Your task to perform on an android device: What's the weather going to be this weekend? Image 0: 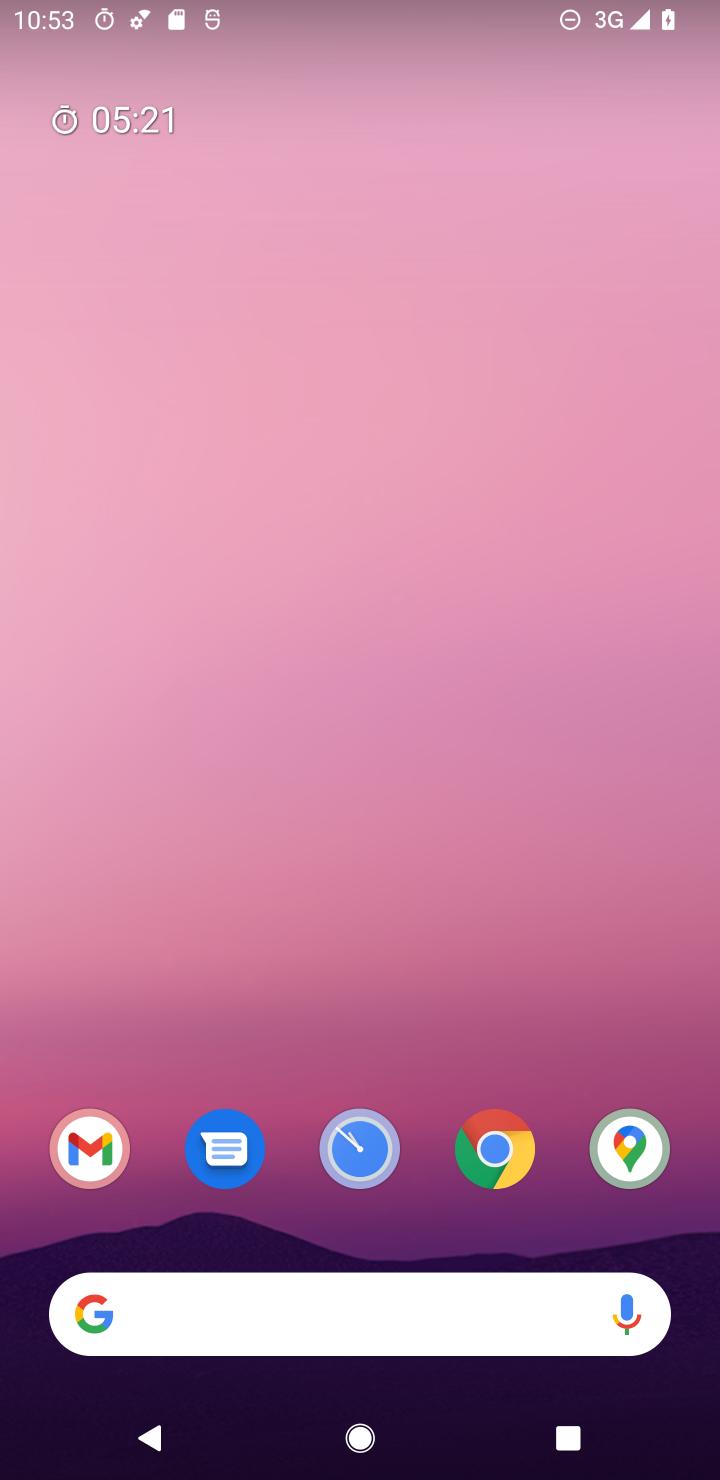
Step 0: drag from (405, 981) to (405, 378)
Your task to perform on an android device: What's the weather going to be this weekend? Image 1: 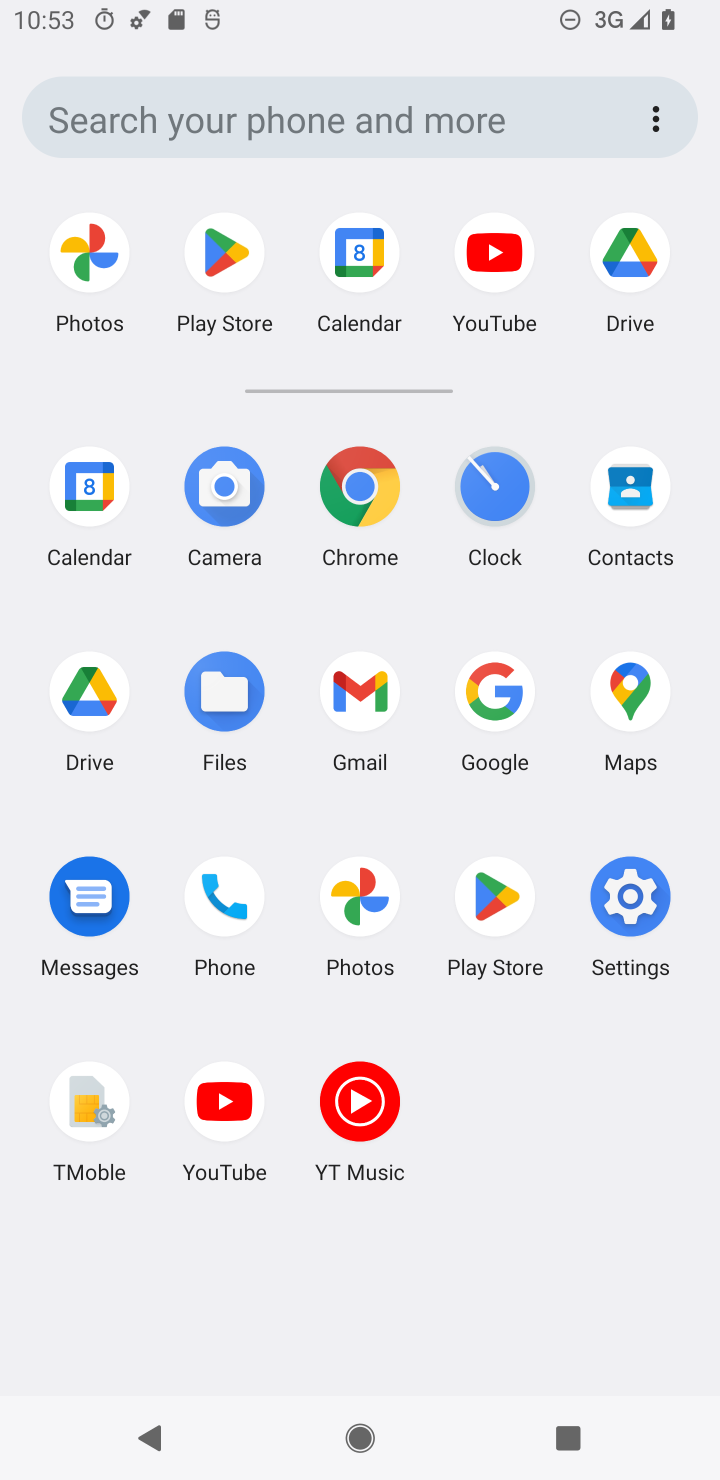
Step 1: click (474, 701)
Your task to perform on an android device: What's the weather going to be this weekend? Image 2: 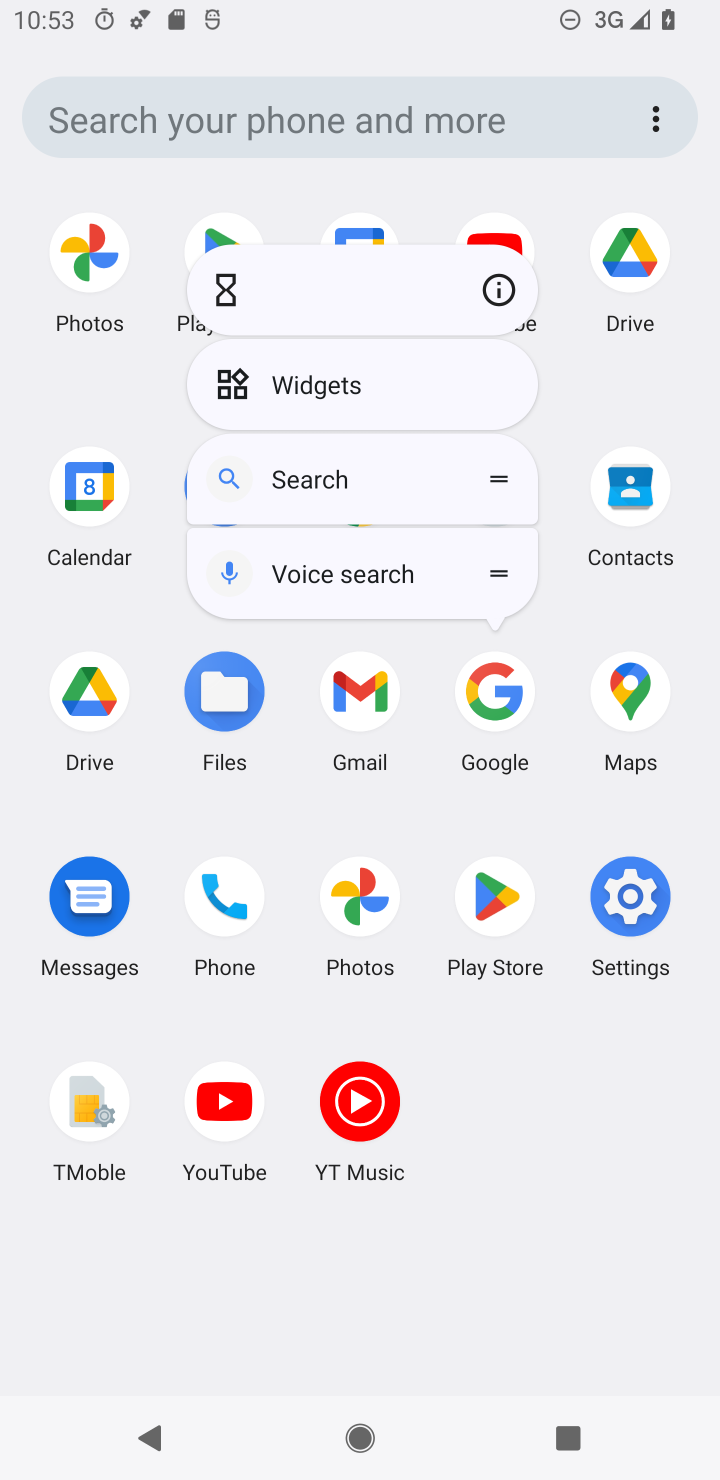
Step 2: click (463, 693)
Your task to perform on an android device: What's the weather going to be this weekend? Image 3: 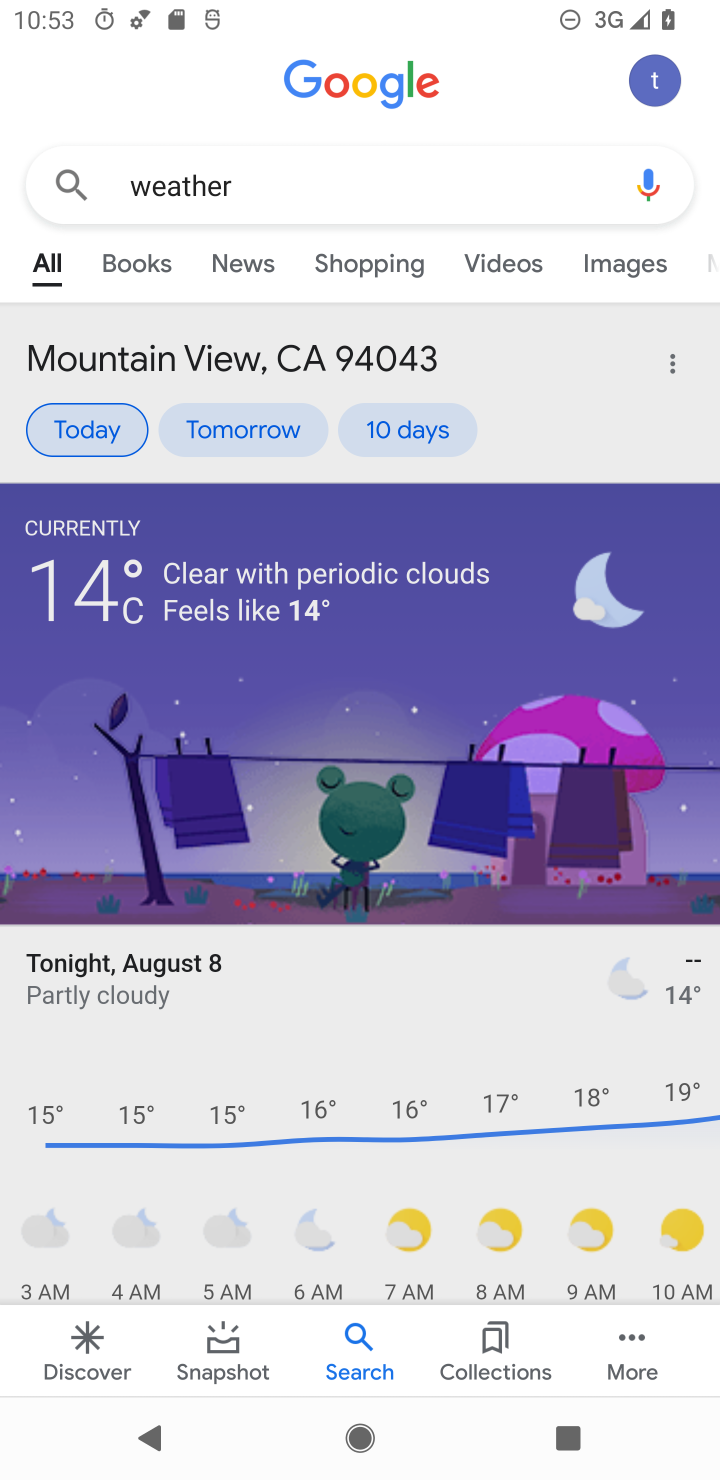
Step 3: click (363, 197)
Your task to perform on an android device: What's the weather going to be this weekend? Image 4: 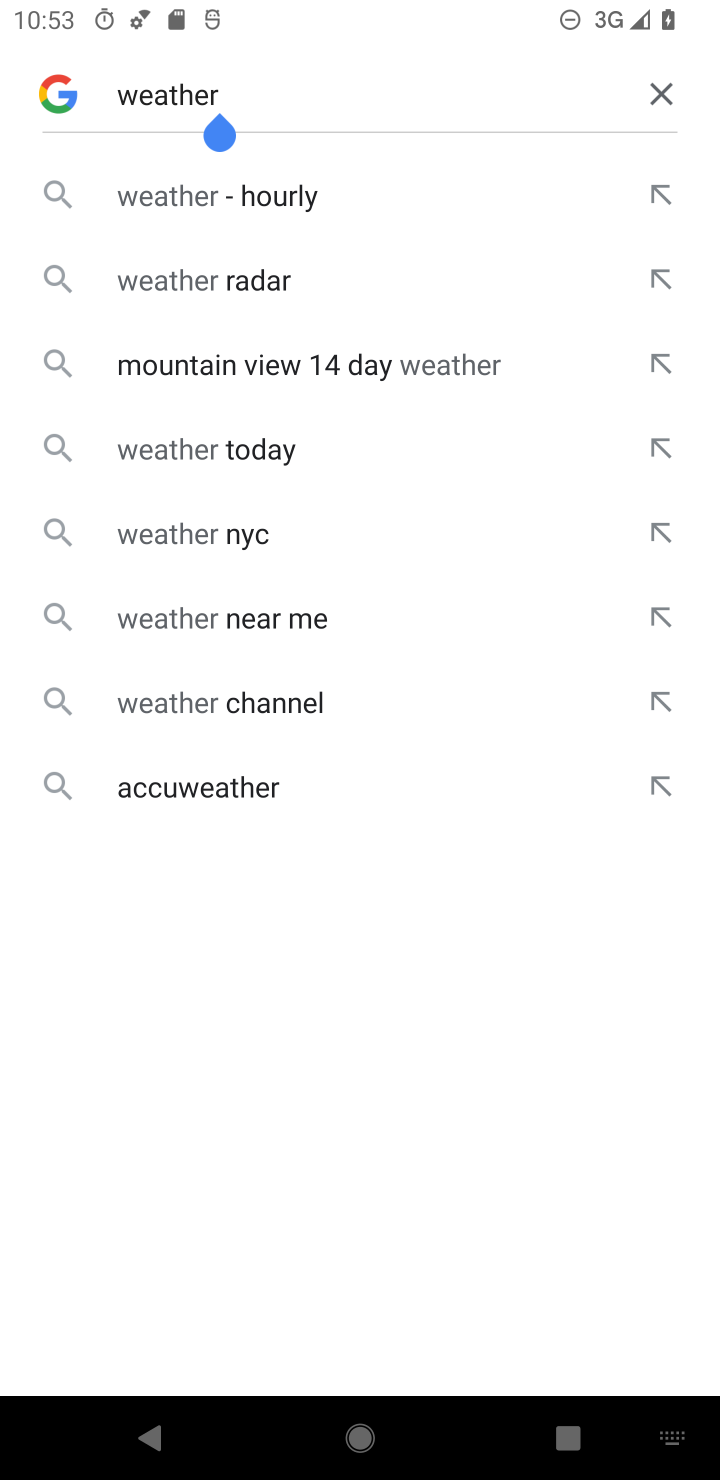
Step 4: click (661, 104)
Your task to perform on an android device: What's the weather going to be this weekend? Image 5: 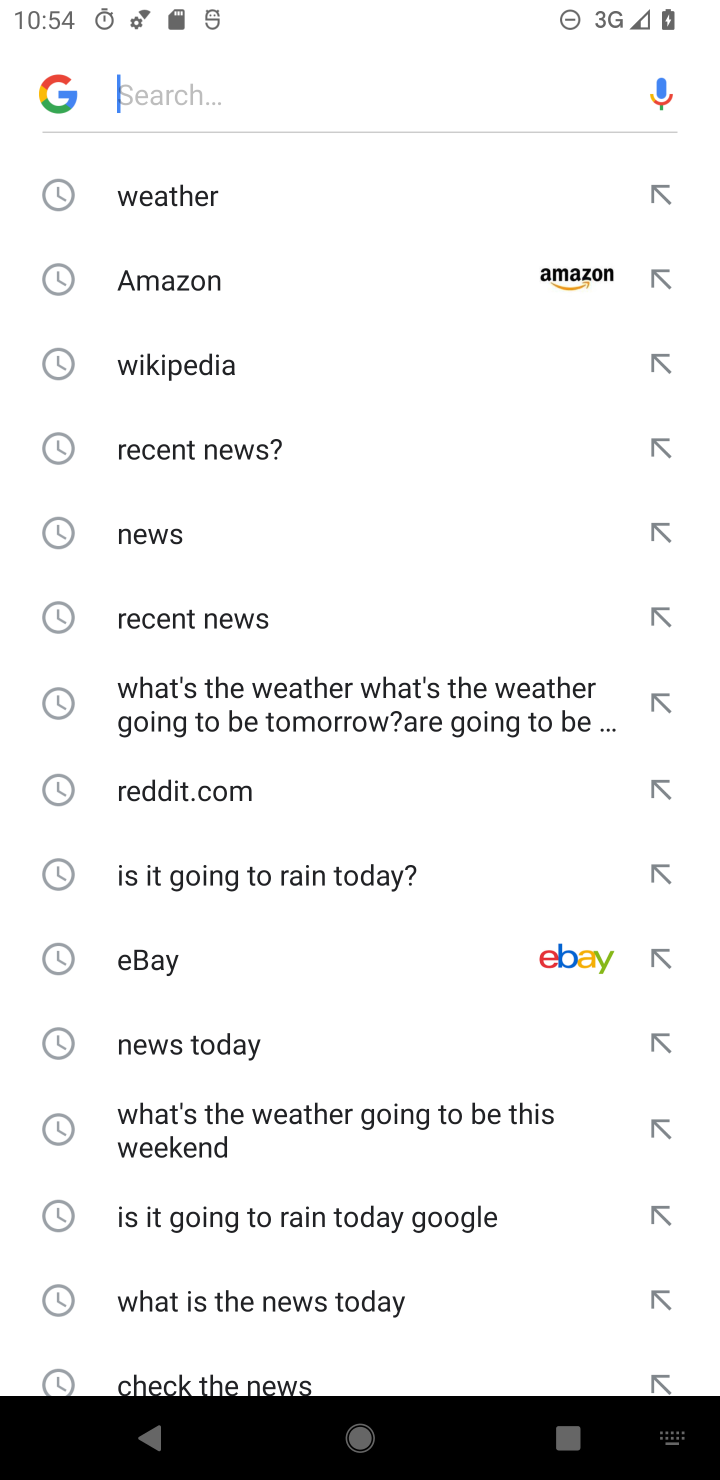
Step 5: click (179, 1129)
Your task to perform on an android device: What's the weather going to be this weekend? Image 6: 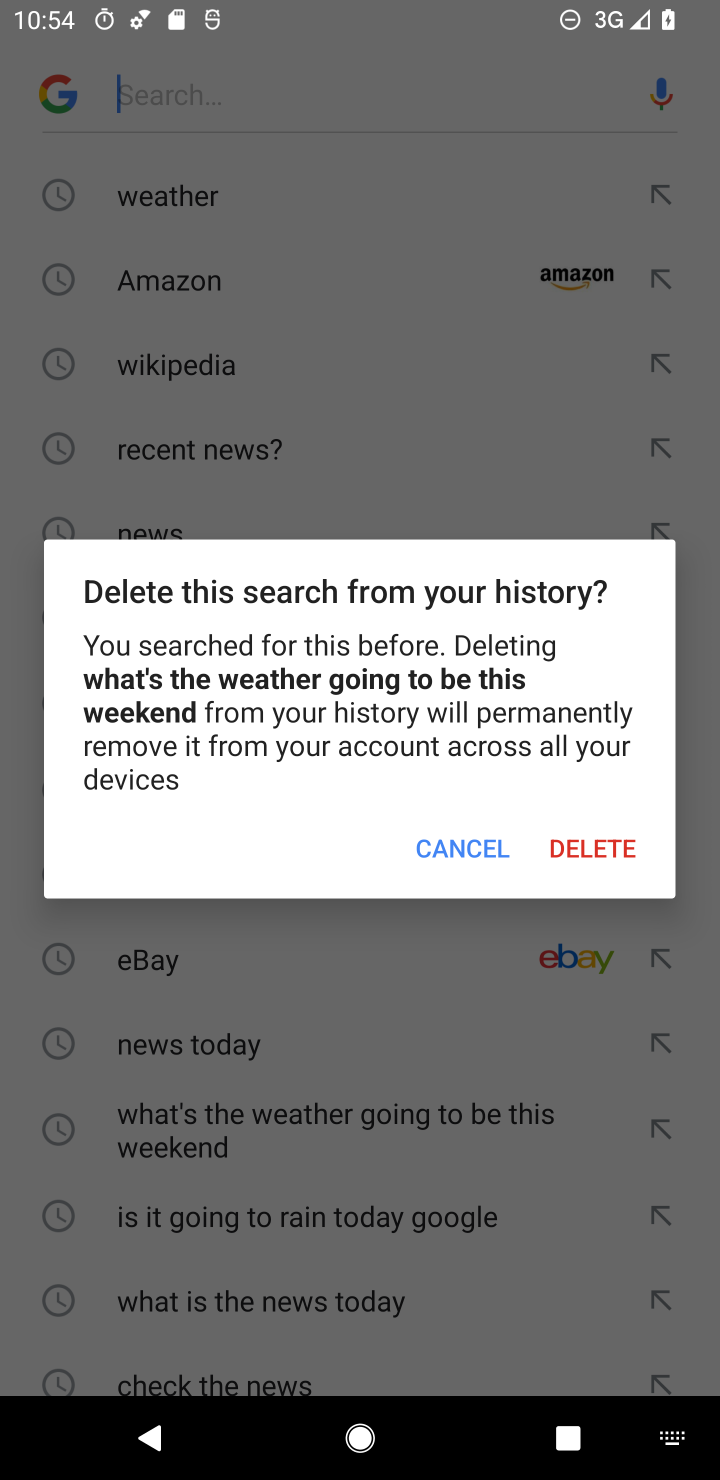
Step 6: click (473, 841)
Your task to perform on an android device: What's the weather going to be this weekend? Image 7: 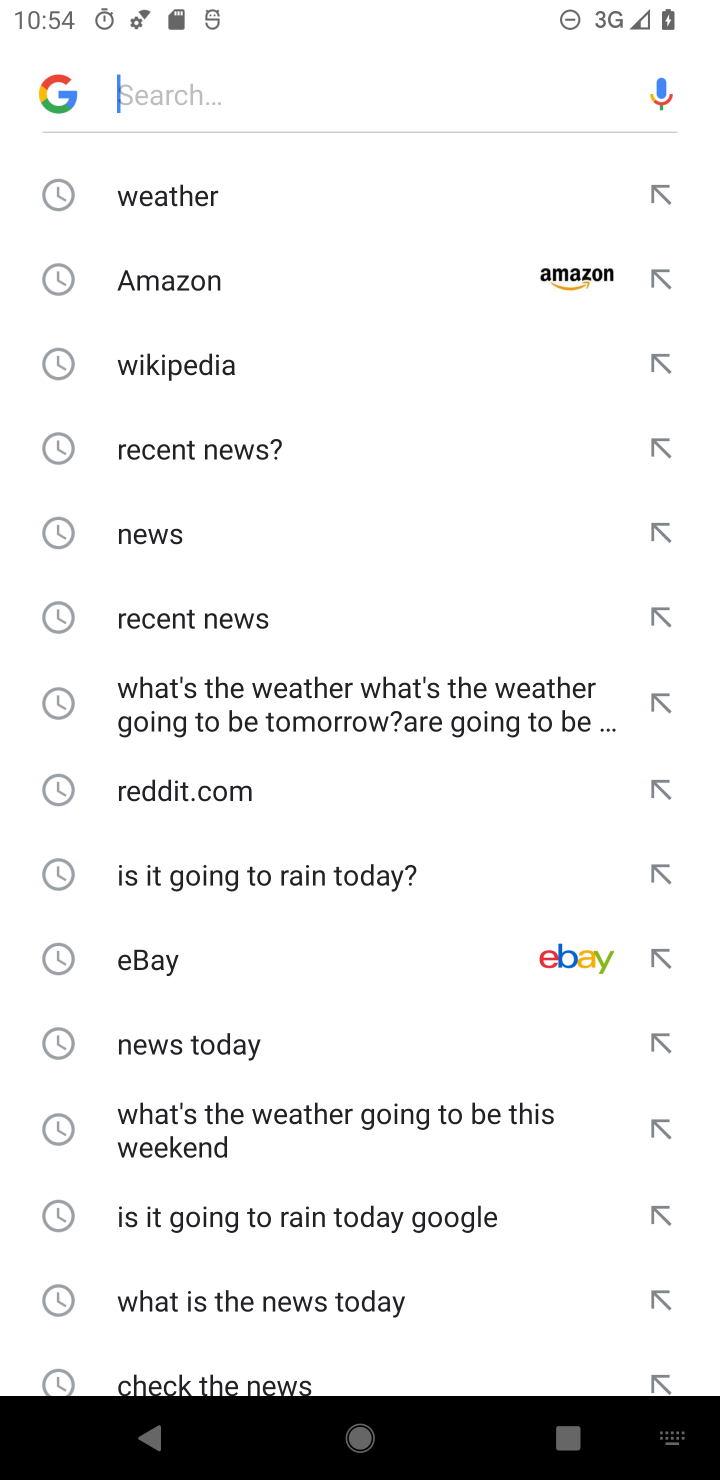
Step 7: click (287, 1116)
Your task to perform on an android device: What's the weather going to be this weekend? Image 8: 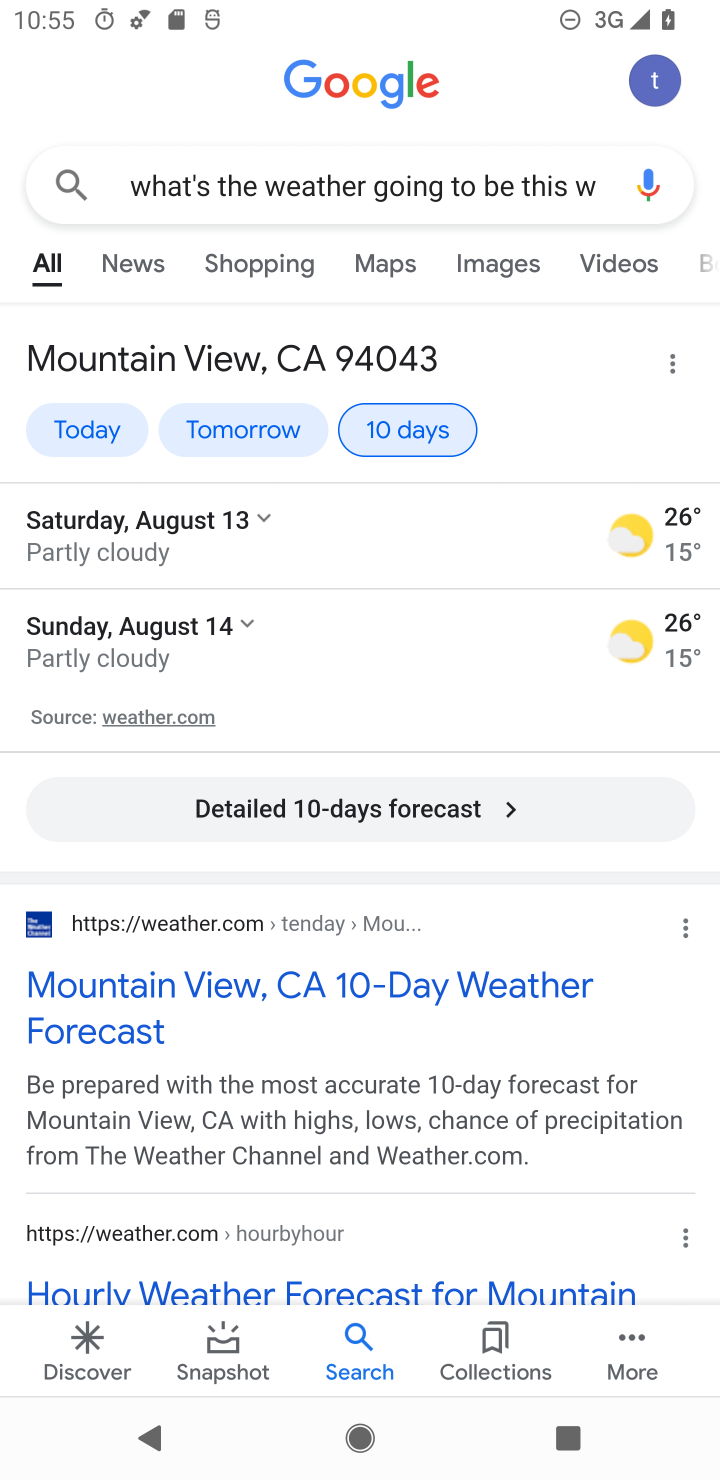
Step 8: click (367, 792)
Your task to perform on an android device: What's the weather going to be this weekend? Image 9: 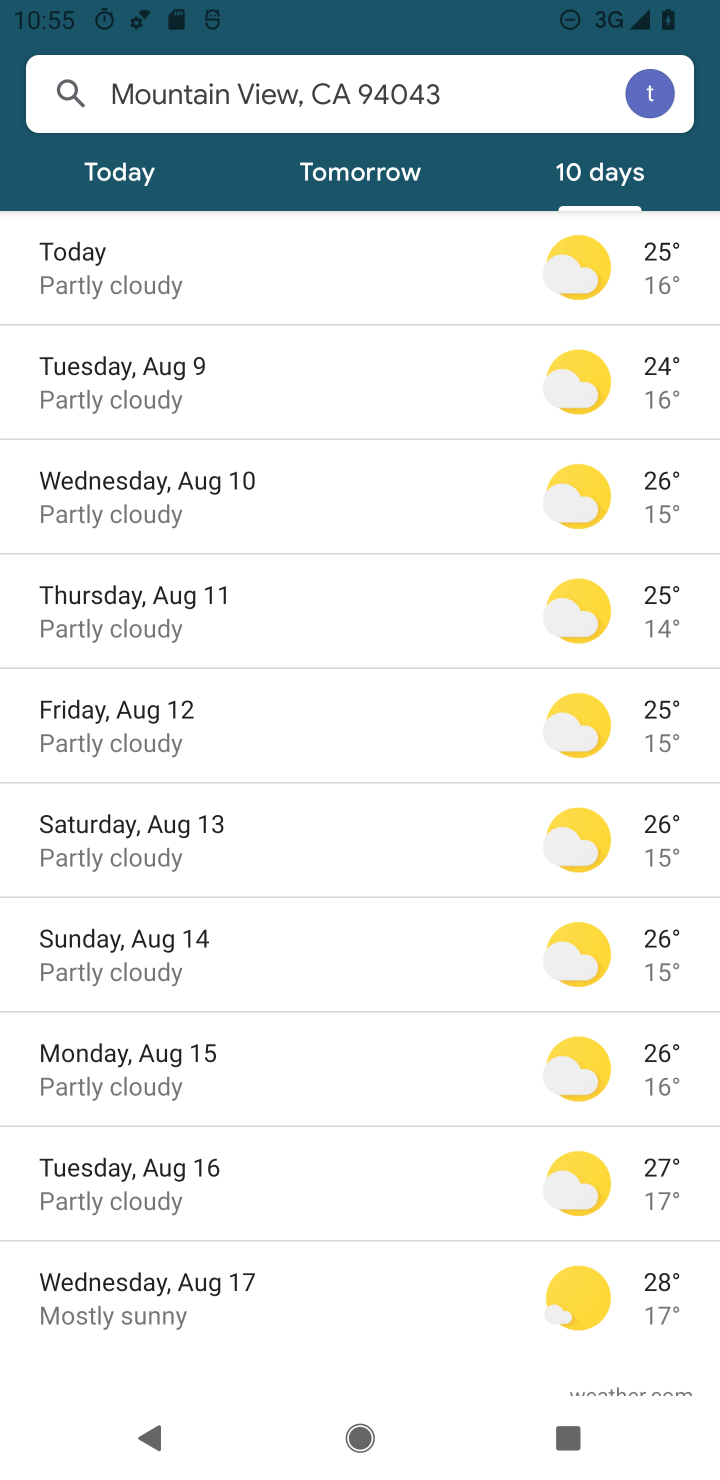
Step 9: task complete